Your task to perform on an android device: Open the map Image 0: 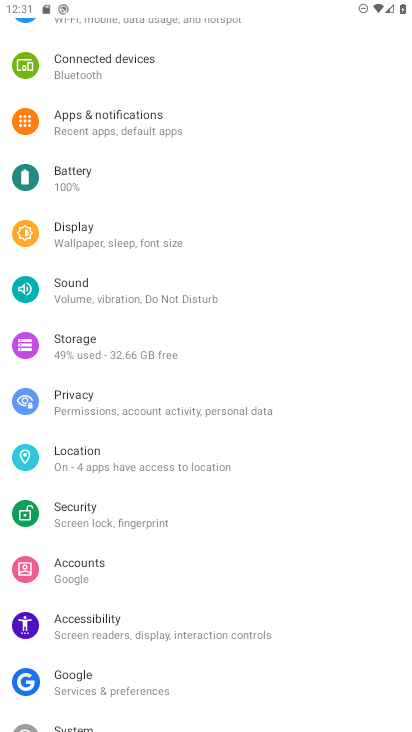
Step 0: press home button
Your task to perform on an android device: Open the map Image 1: 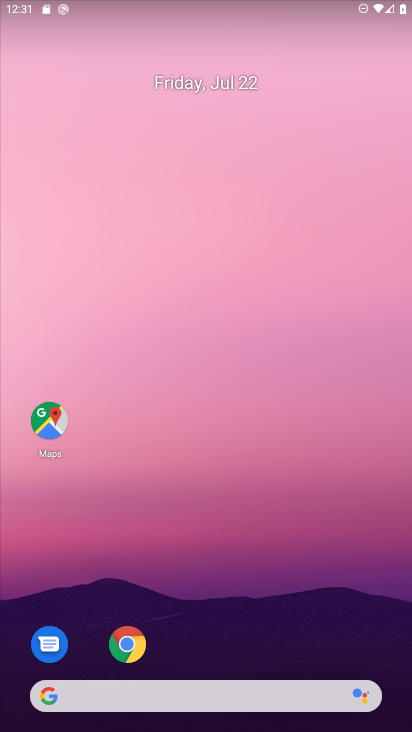
Step 1: click (35, 433)
Your task to perform on an android device: Open the map Image 2: 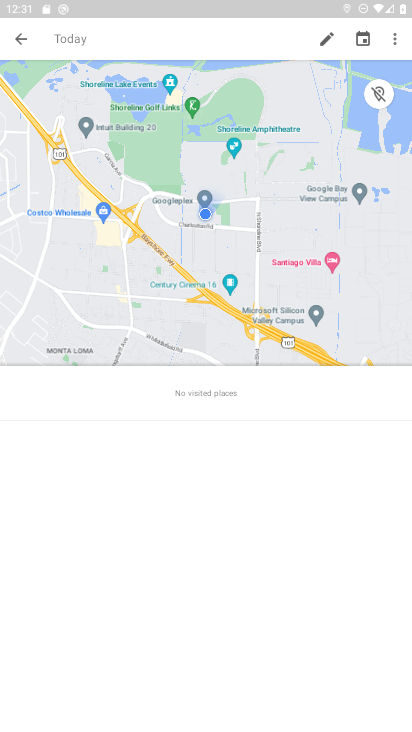
Step 2: task complete